Your task to perform on an android device: Open ESPN.com Image 0: 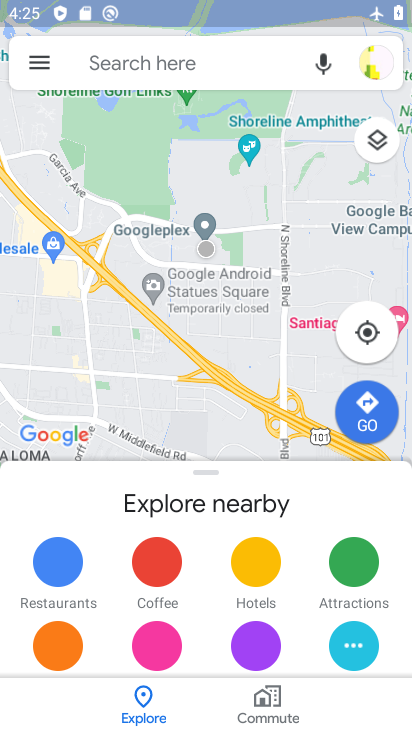
Step 0: press home button
Your task to perform on an android device: Open ESPN.com Image 1: 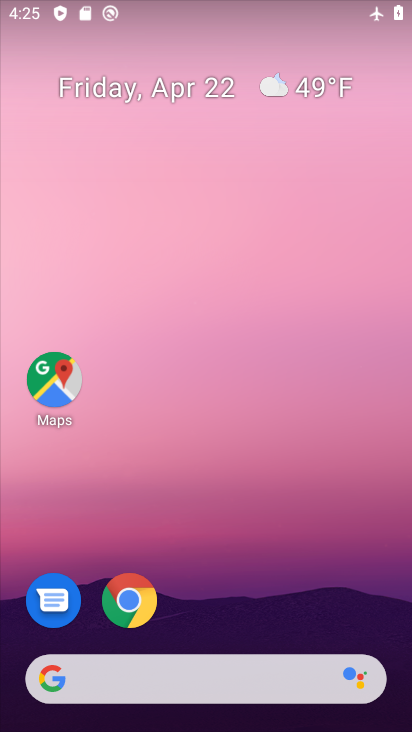
Step 1: click (129, 596)
Your task to perform on an android device: Open ESPN.com Image 2: 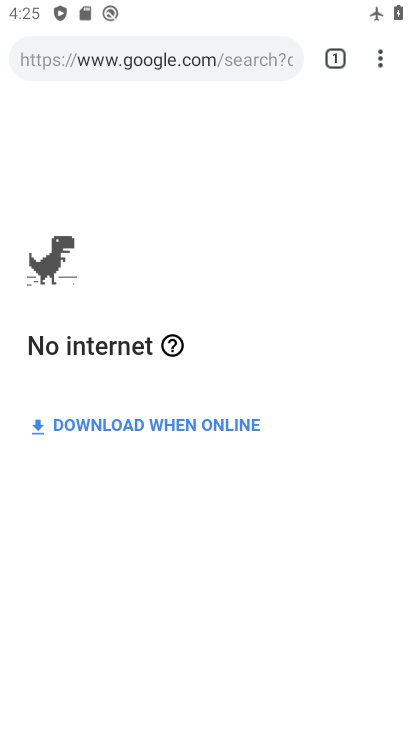
Step 2: click (247, 53)
Your task to perform on an android device: Open ESPN.com Image 3: 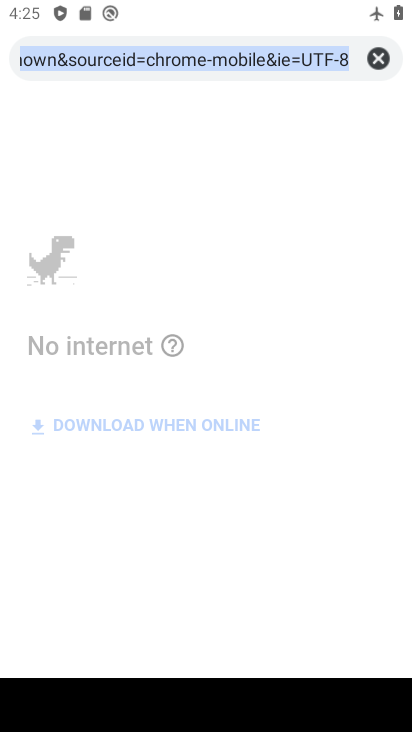
Step 3: click (368, 57)
Your task to perform on an android device: Open ESPN.com Image 4: 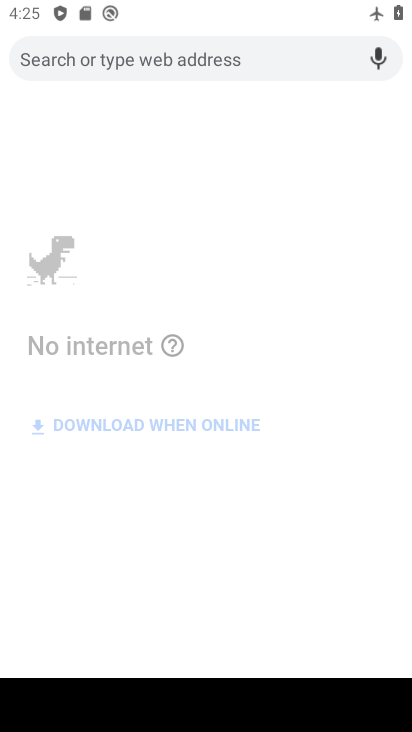
Step 4: click (380, 59)
Your task to perform on an android device: Open ESPN.com Image 5: 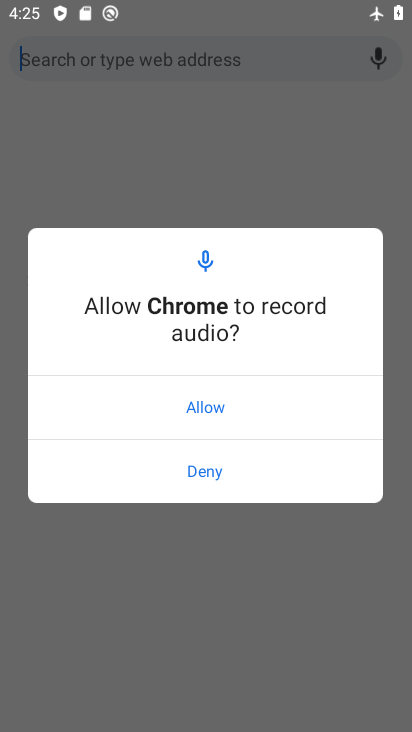
Step 5: click (213, 403)
Your task to perform on an android device: Open ESPN.com Image 6: 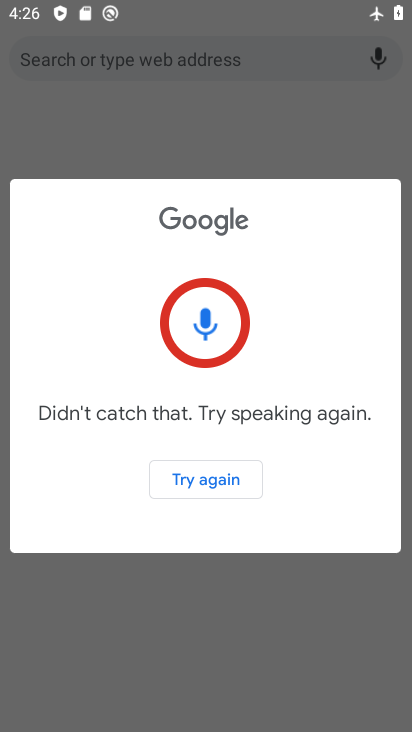
Step 6: click (290, 146)
Your task to perform on an android device: Open ESPN.com Image 7: 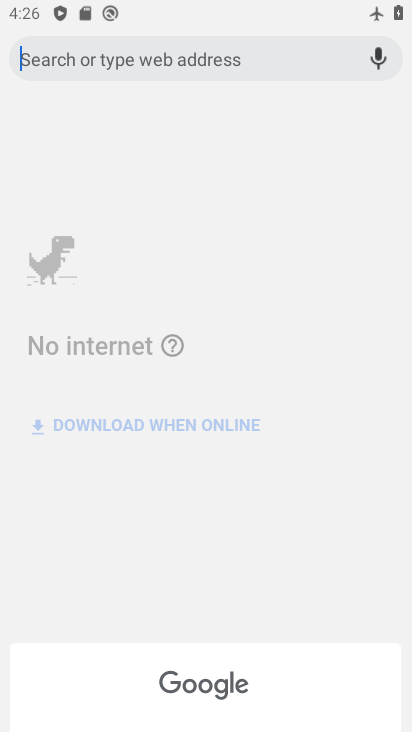
Step 7: click (216, 593)
Your task to perform on an android device: Open ESPN.com Image 8: 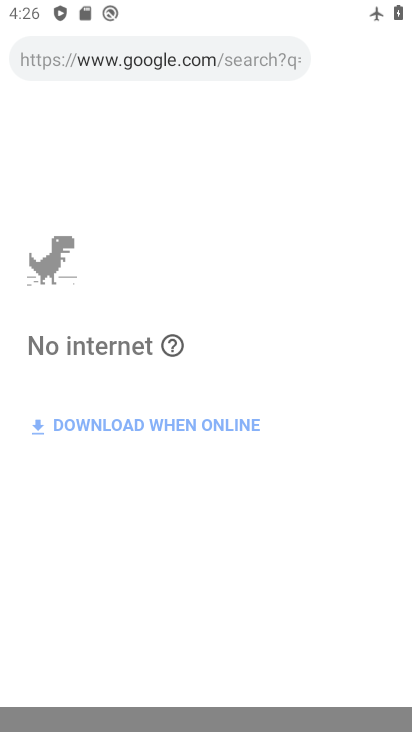
Step 8: click (192, 57)
Your task to perform on an android device: Open ESPN.com Image 9: 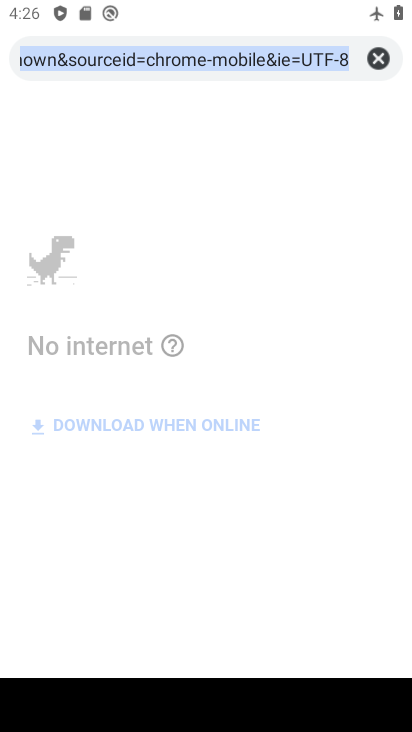
Step 9: click (380, 59)
Your task to perform on an android device: Open ESPN.com Image 10: 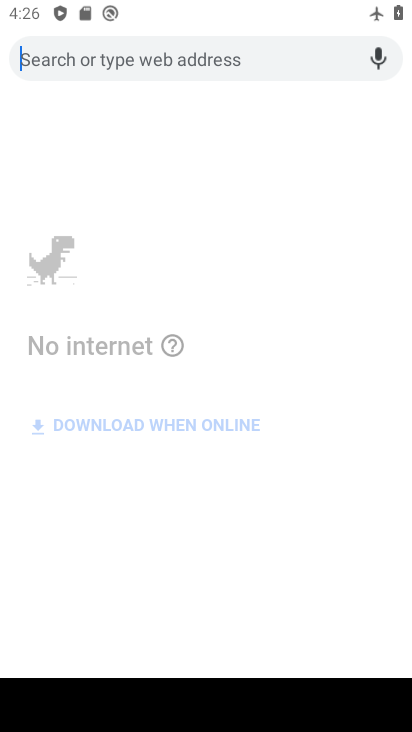
Step 10: click (247, 62)
Your task to perform on an android device: Open ESPN.com Image 11: 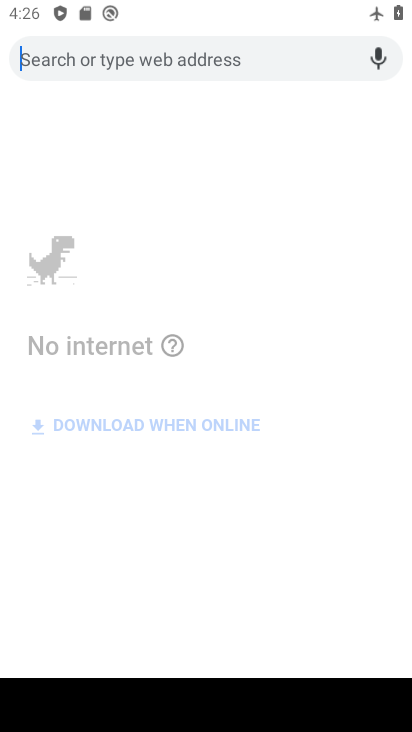
Step 11: type "ESPN.com"
Your task to perform on an android device: Open ESPN.com Image 12: 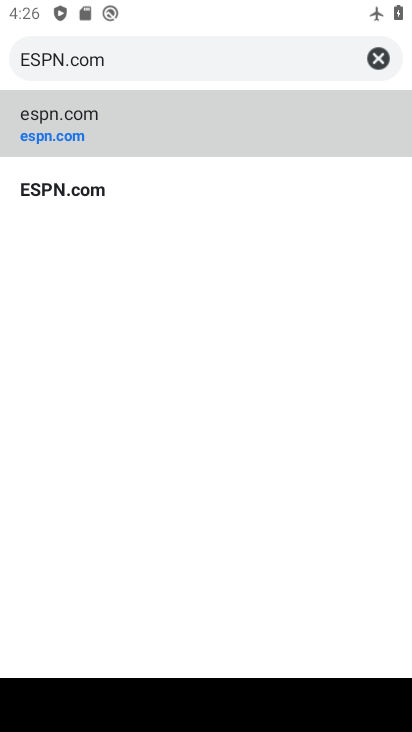
Step 12: click (60, 191)
Your task to perform on an android device: Open ESPN.com Image 13: 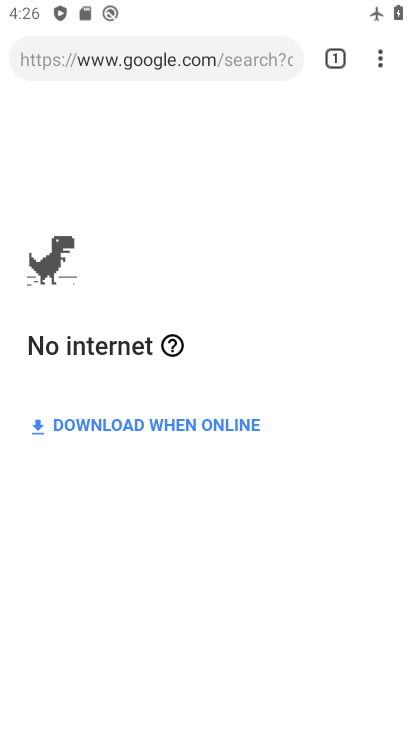
Step 13: task complete